Your task to perform on an android device: Go to notification settings Image 0: 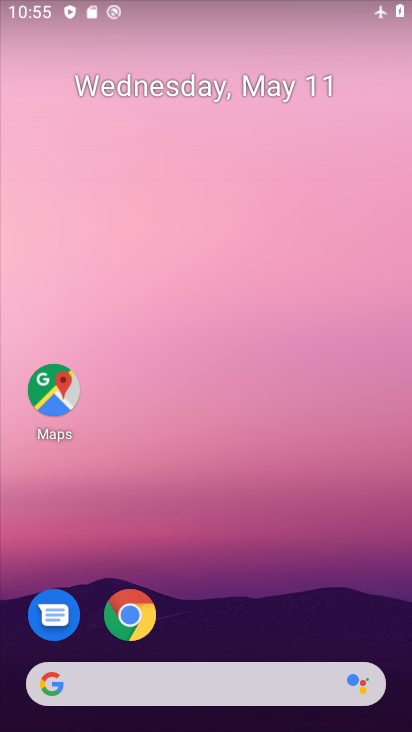
Step 0: drag from (219, 504) to (96, 71)
Your task to perform on an android device: Go to notification settings Image 1: 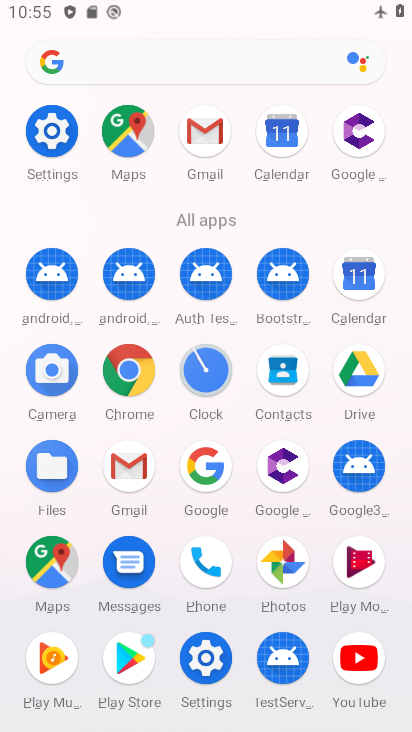
Step 1: click (196, 658)
Your task to perform on an android device: Go to notification settings Image 2: 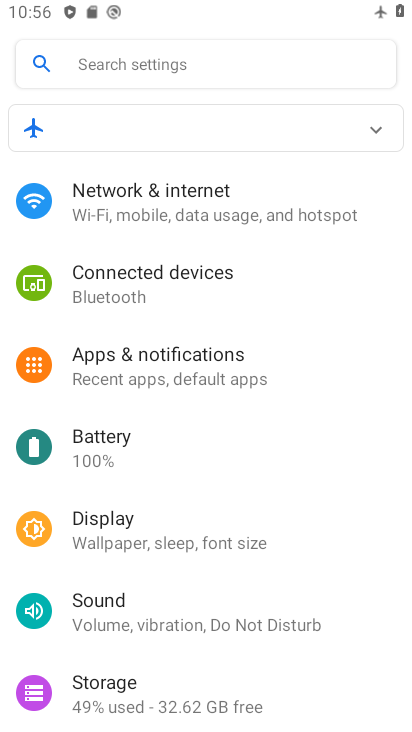
Step 2: click (194, 364)
Your task to perform on an android device: Go to notification settings Image 3: 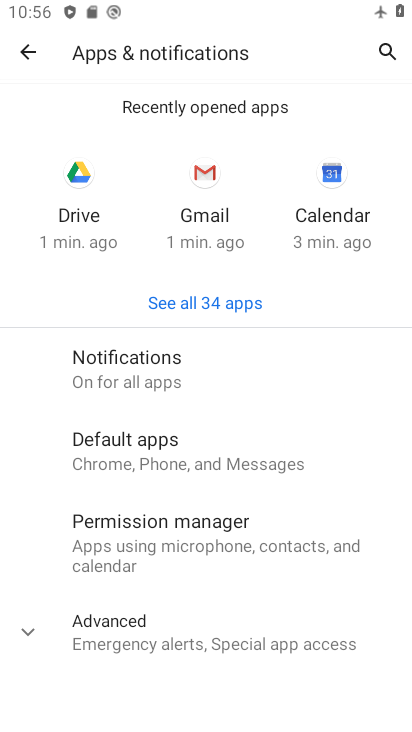
Step 3: click (127, 352)
Your task to perform on an android device: Go to notification settings Image 4: 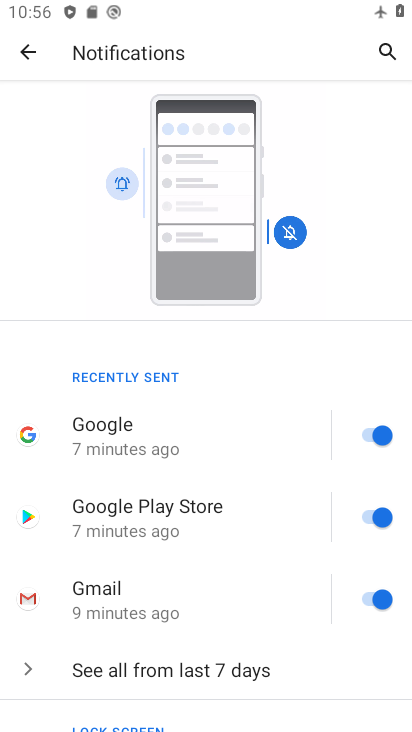
Step 4: task complete